Your task to perform on an android device: change the clock display to digital Image 0: 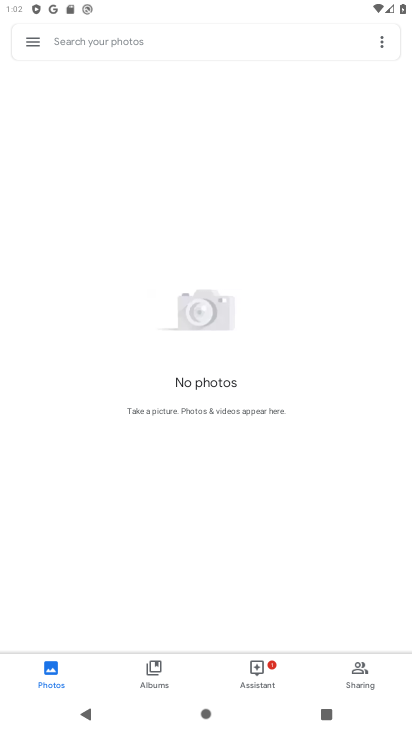
Step 0: press home button
Your task to perform on an android device: change the clock display to digital Image 1: 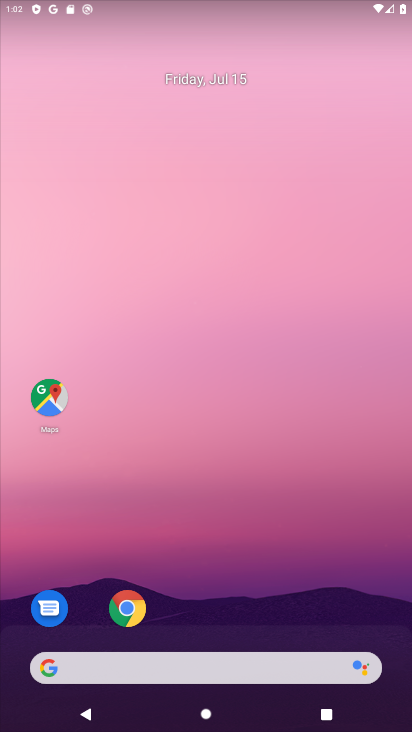
Step 1: drag from (265, 694) to (210, 126)
Your task to perform on an android device: change the clock display to digital Image 2: 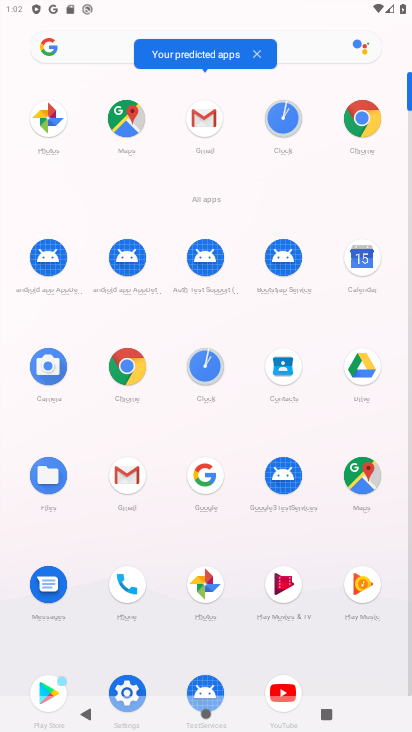
Step 2: click (213, 362)
Your task to perform on an android device: change the clock display to digital Image 3: 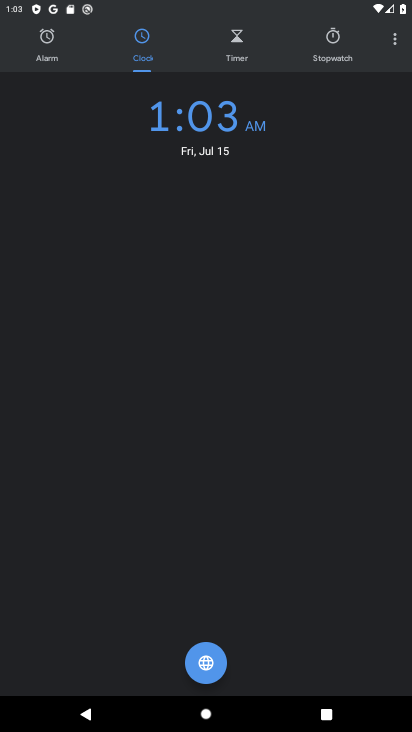
Step 3: click (388, 49)
Your task to perform on an android device: change the clock display to digital Image 4: 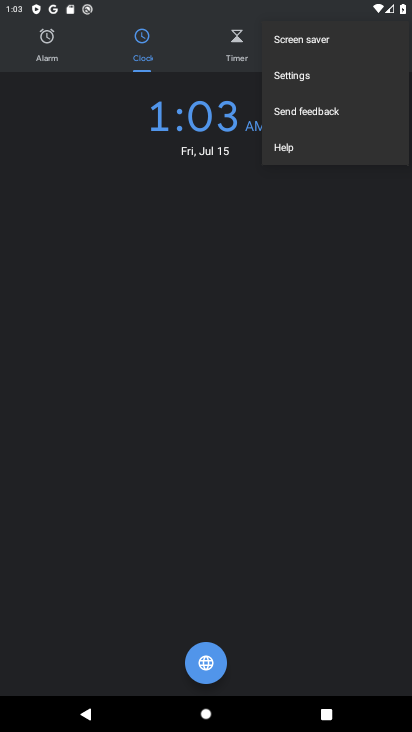
Step 4: click (306, 76)
Your task to perform on an android device: change the clock display to digital Image 5: 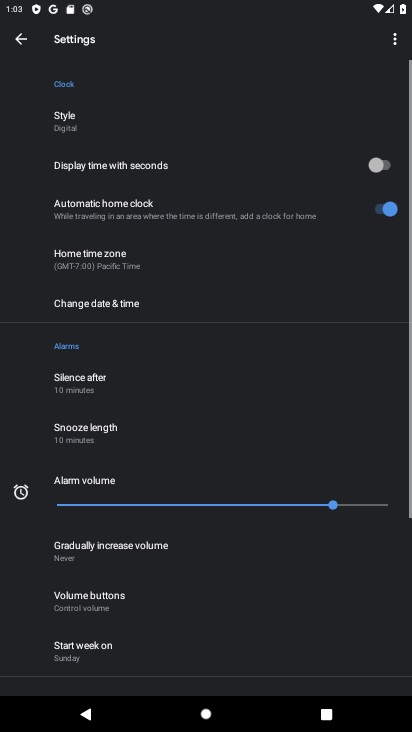
Step 5: click (100, 121)
Your task to perform on an android device: change the clock display to digital Image 6: 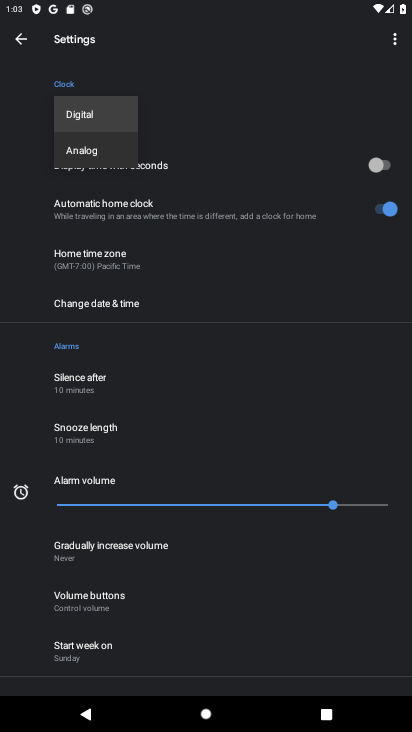
Step 6: click (101, 121)
Your task to perform on an android device: change the clock display to digital Image 7: 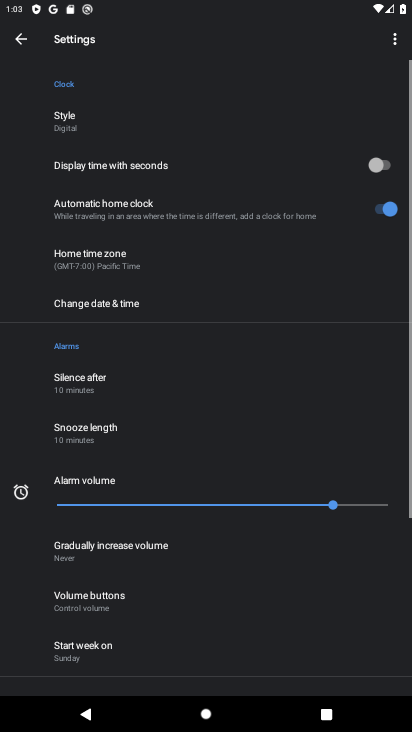
Step 7: task complete